Your task to perform on an android device: Open the calendar and show me this week's events? Image 0: 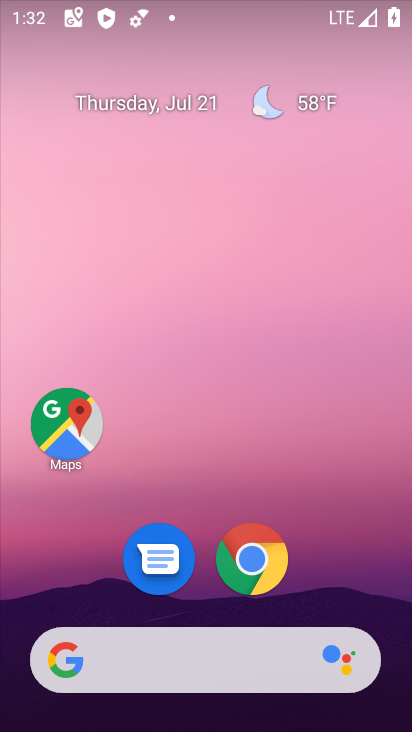
Step 0: drag from (340, 586) to (344, 164)
Your task to perform on an android device: Open the calendar and show me this week's events? Image 1: 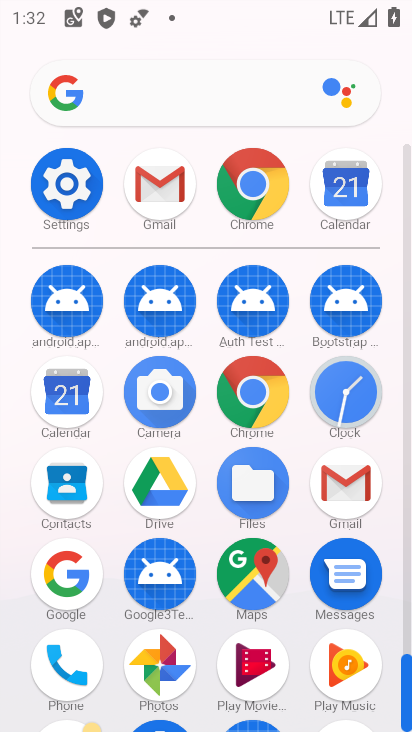
Step 1: click (67, 398)
Your task to perform on an android device: Open the calendar and show me this week's events? Image 2: 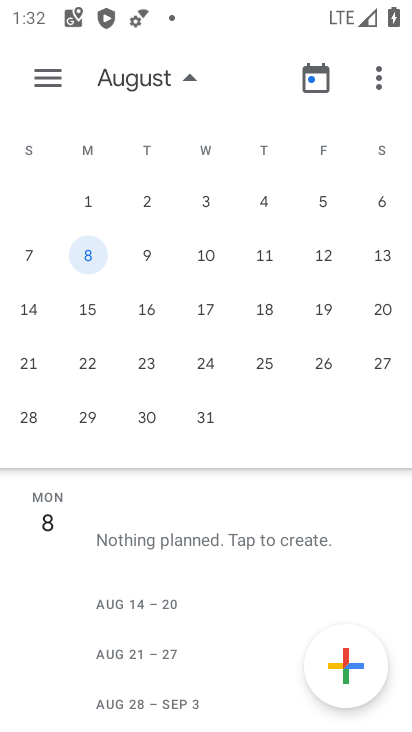
Step 2: drag from (269, 527) to (283, 432)
Your task to perform on an android device: Open the calendar and show me this week's events? Image 3: 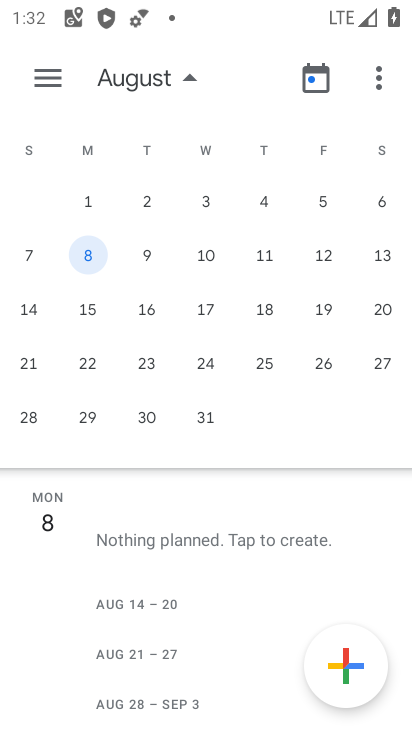
Step 3: drag from (237, 486) to (248, 284)
Your task to perform on an android device: Open the calendar and show me this week's events? Image 4: 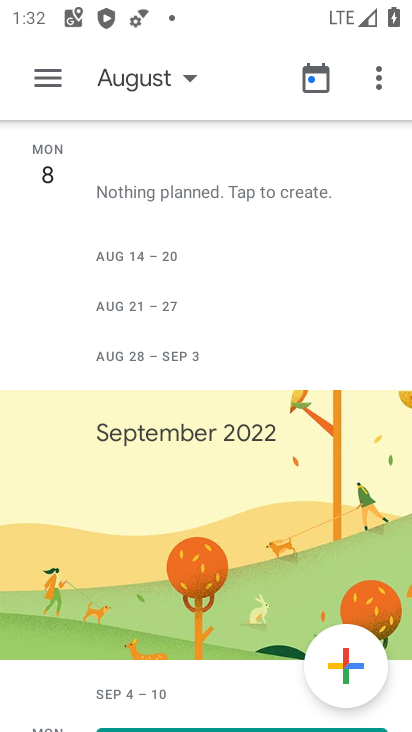
Step 4: drag from (241, 458) to (248, 273)
Your task to perform on an android device: Open the calendar and show me this week's events? Image 5: 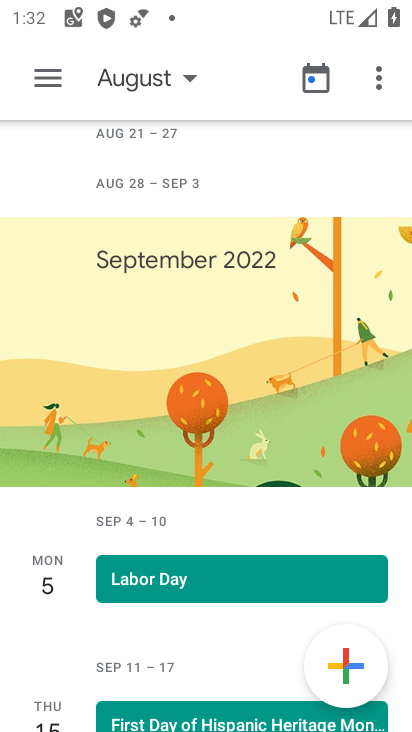
Step 5: drag from (263, 191) to (266, 307)
Your task to perform on an android device: Open the calendar and show me this week's events? Image 6: 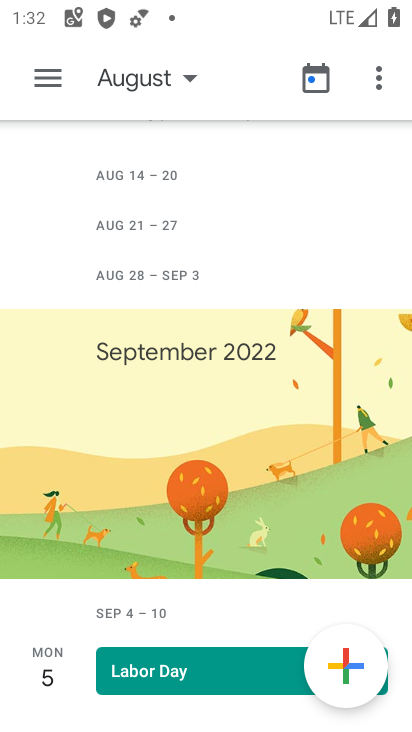
Step 6: drag from (264, 181) to (264, 274)
Your task to perform on an android device: Open the calendar and show me this week's events? Image 7: 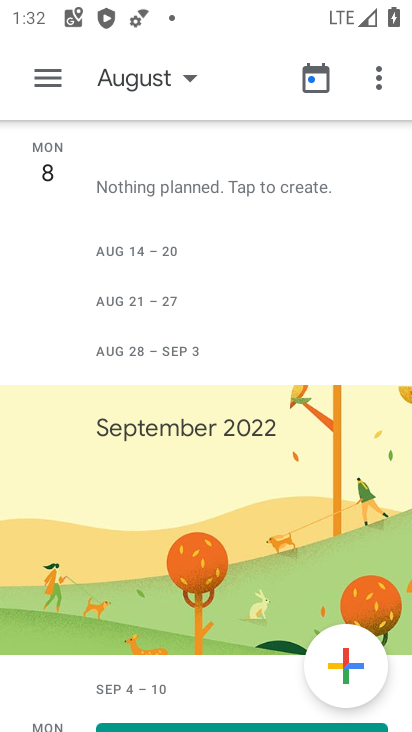
Step 7: drag from (256, 164) to (241, 302)
Your task to perform on an android device: Open the calendar and show me this week's events? Image 8: 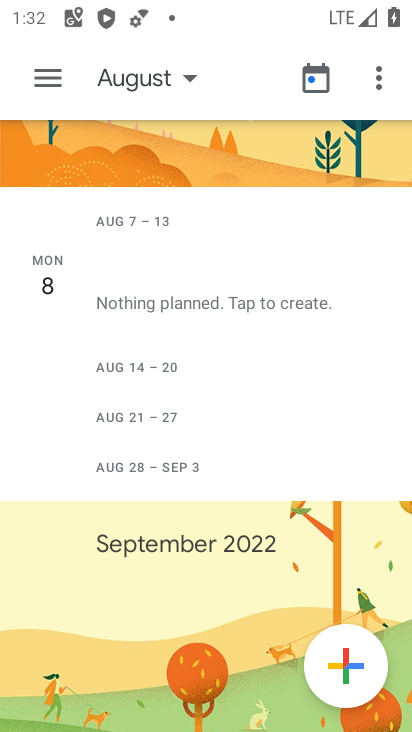
Step 8: drag from (234, 170) to (225, 320)
Your task to perform on an android device: Open the calendar and show me this week's events? Image 9: 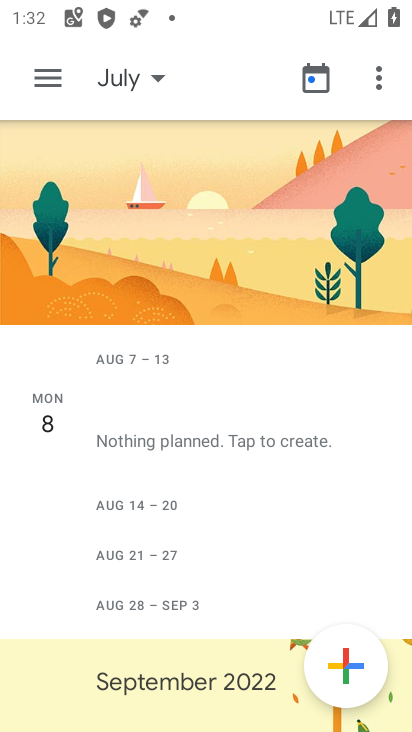
Step 9: drag from (212, 185) to (210, 299)
Your task to perform on an android device: Open the calendar and show me this week's events? Image 10: 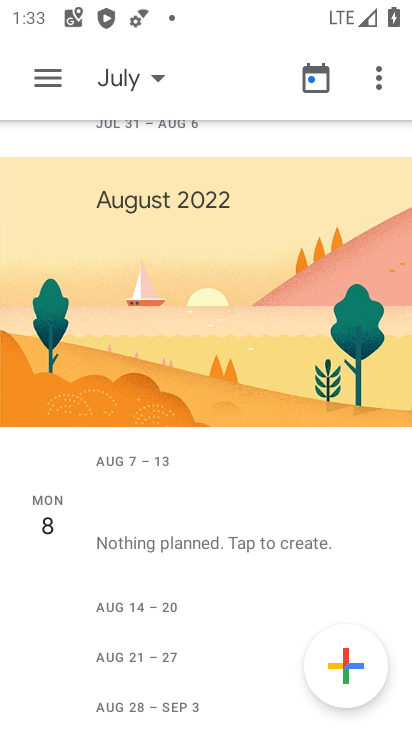
Step 10: click (161, 81)
Your task to perform on an android device: Open the calendar and show me this week's events? Image 11: 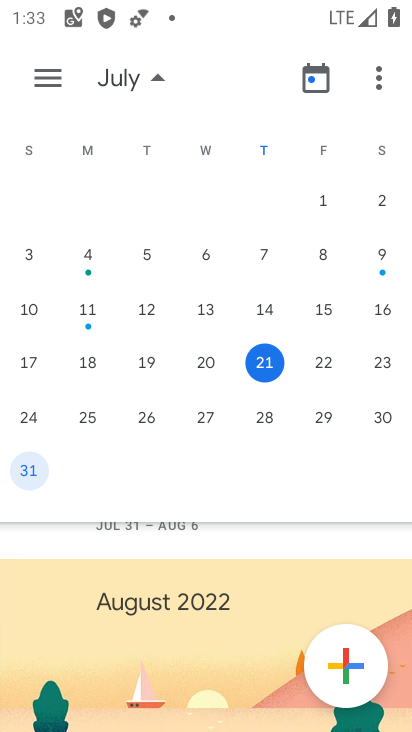
Step 11: click (271, 368)
Your task to perform on an android device: Open the calendar and show me this week's events? Image 12: 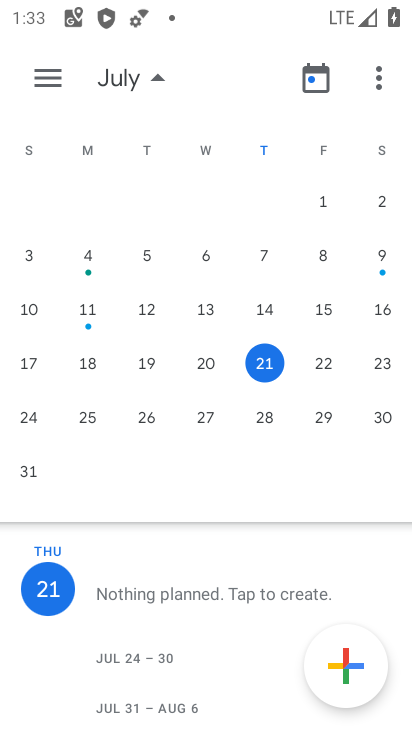
Step 12: task complete